Your task to perform on an android device: Is it going to rain this weekend? Image 0: 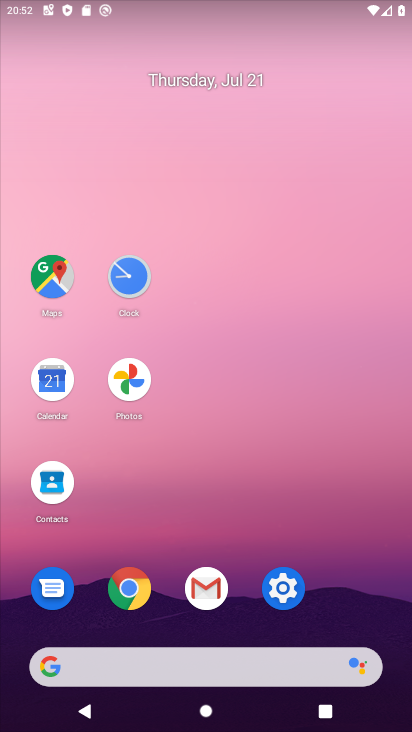
Step 0: click (193, 668)
Your task to perform on an android device: Is it going to rain this weekend? Image 1: 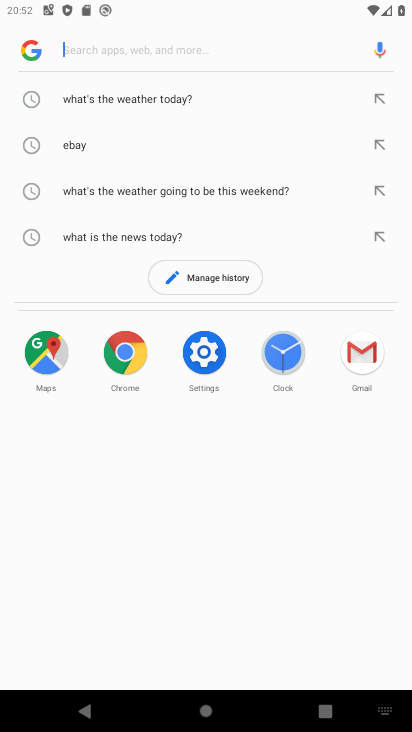
Step 1: click (119, 92)
Your task to perform on an android device: Is it going to rain this weekend? Image 2: 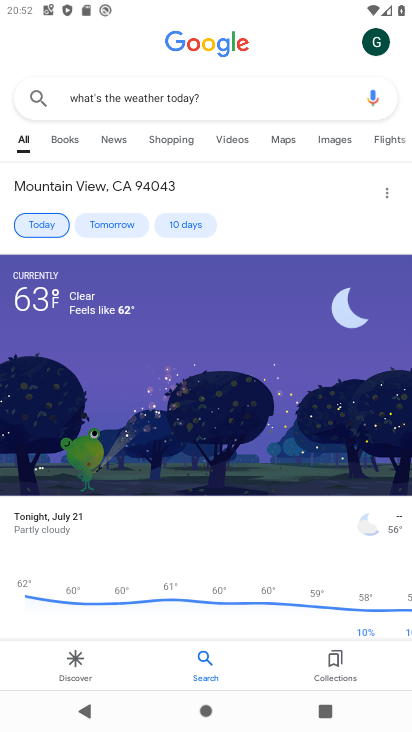
Step 2: click (178, 224)
Your task to perform on an android device: Is it going to rain this weekend? Image 3: 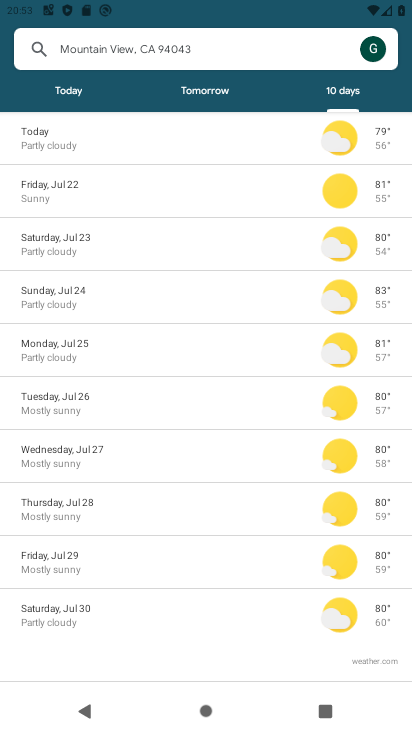
Step 3: task complete